Your task to perform on an android device: see tabs open on other devices in the chrome app Image 0: 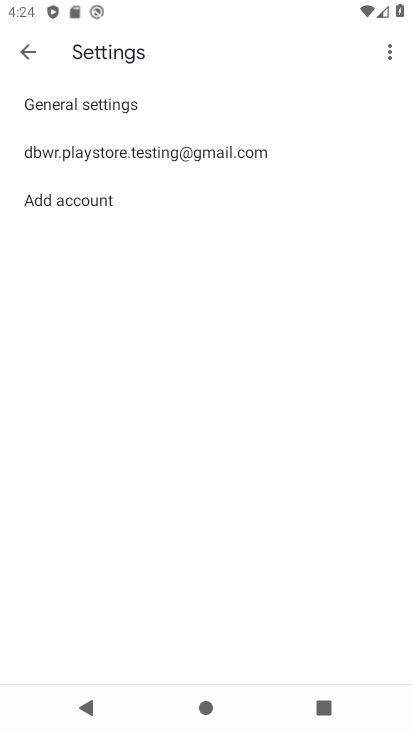
Step 0: press back button
Your task to perform on an android device: see tabs open on other devices in the chrome app Image 1: 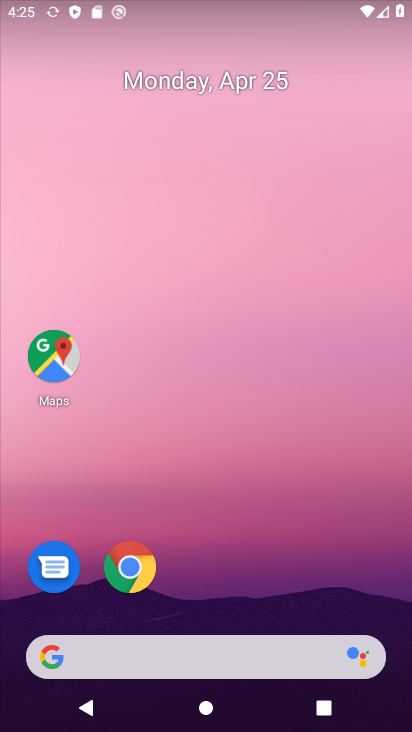
Step 1: click (119, 561)
Your task to perform on an android device: see tabs open on other devices in the chrome app Image 2: 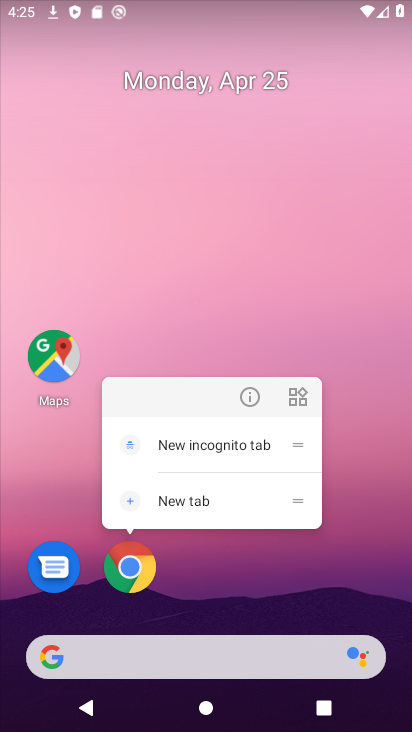
Step 2: click (122, 562)
Your task to perform on an android device: see tabs open on other devices in the chrome app Image 3: 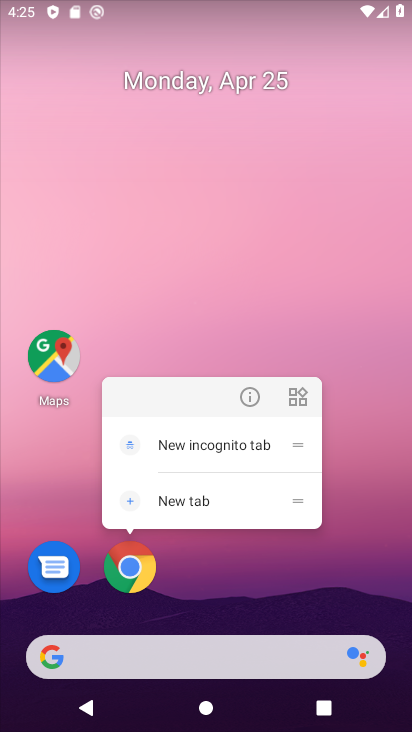
Step 3: click (130, 565)
Your task to perform on an android device: see tabs open on other devices in the chrome app Image 4: 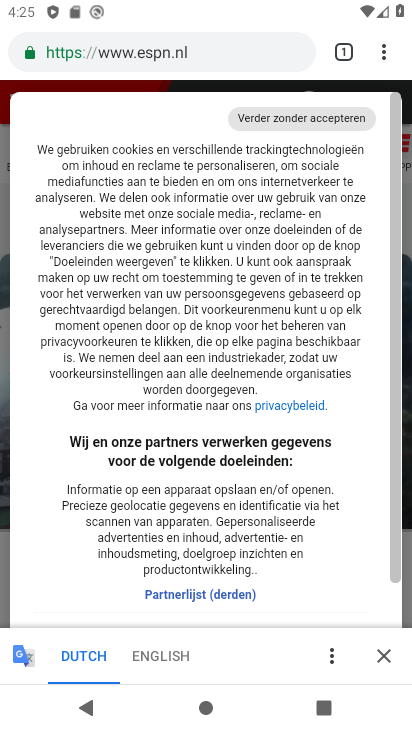
Step 4: task complete